Your task to perform on an android device: Do I have any events this weekend? Image 0: 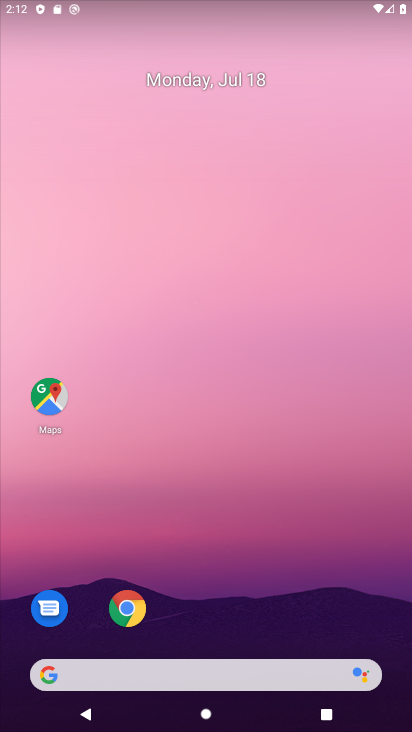
Step 0: drag from (231, 614) to (273, 5)
Your task to perform on an android device: Do I have any events this weekend? Image 1: 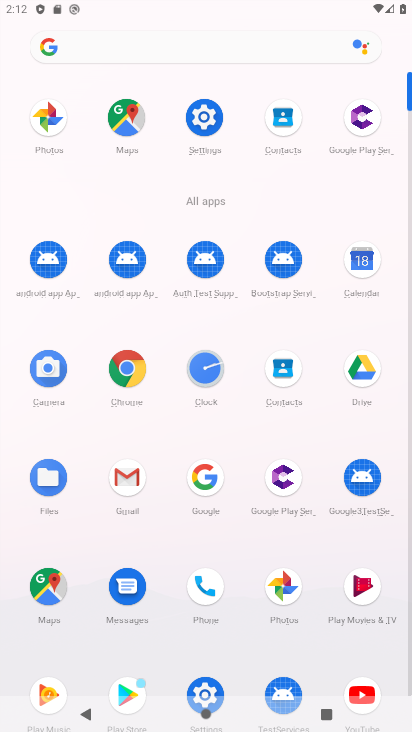
Step 1: click (362, 268)
Your task to perform on an android device: Do I have any events this weekend? Image 2: 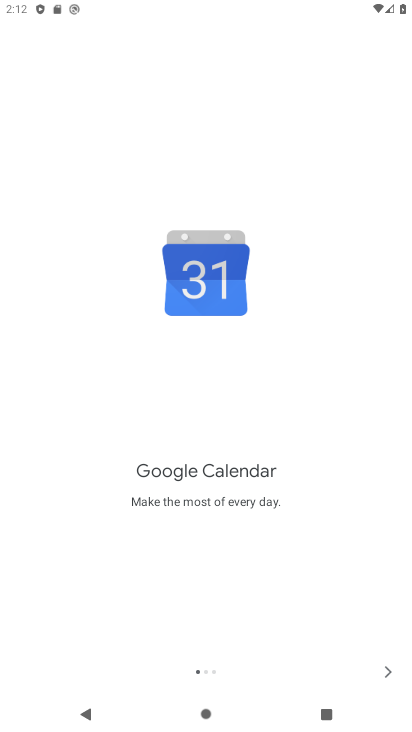
Step 2: click (377, 664)
Your task to perform on an android device: Do I have any events this weekend? Image 3: 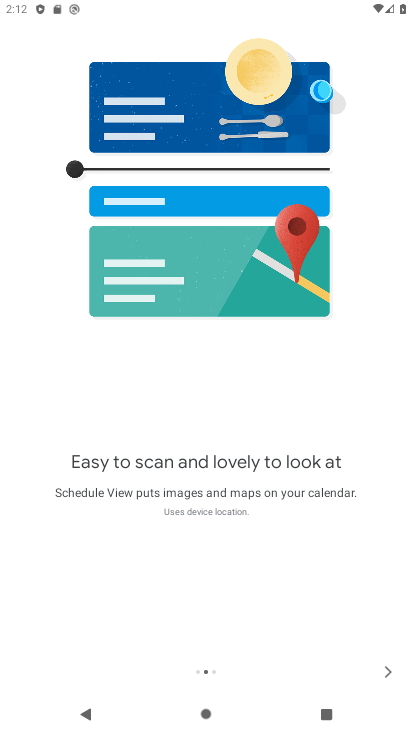
Step 3: click (377, 664)
Your task to perform on an android device: Do I have any events this weekend? Image 4: 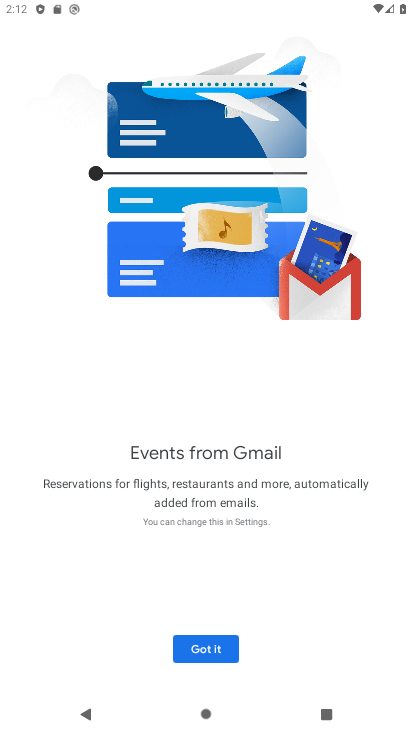
Step 4: click (206, 647)
Your task to perform on an android device: Do I have any events this weekend? Image 5: 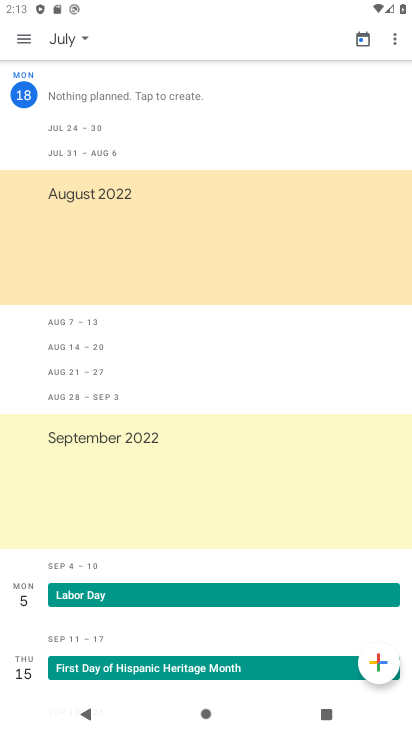
Step 5: click (59, 33)
Your task to perform on an android device: Do I have any events this weekend? Image 6: 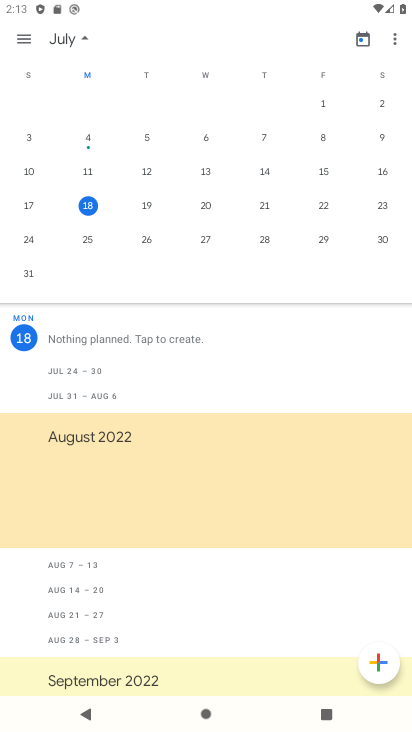
Step 6: click (388, 202)
Your task to perform on an android device: Do I have any events this weekend? Image 7: 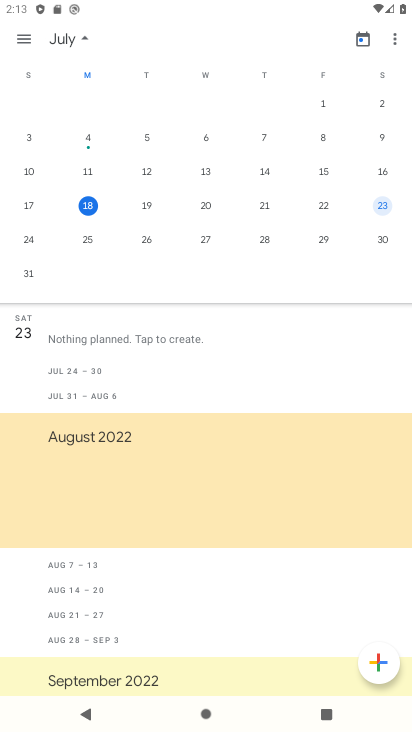
Step 7: click (33, 245)
Your task to perform on an android device: Do I have any events this weekend? Image 8: 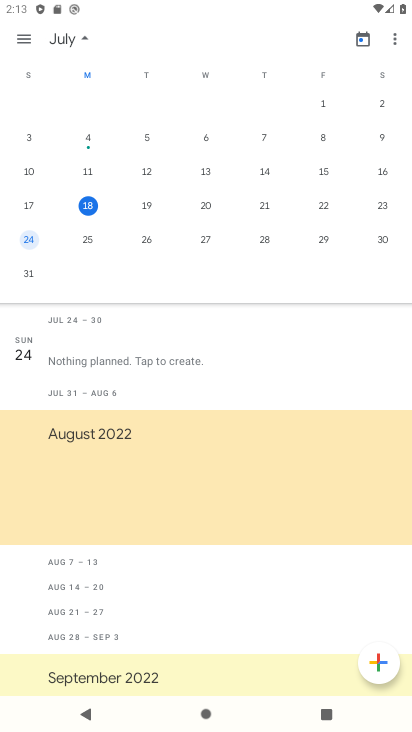
Step 8: task complete